Your task to perform on an android device: Go to battery settings Image 0: 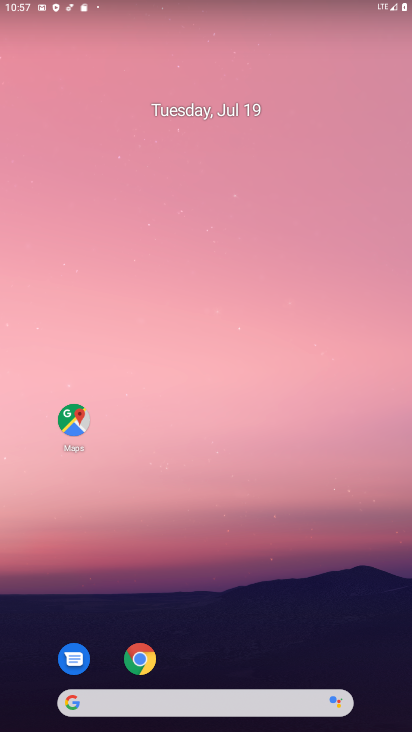
Step 0: drag from (222, 618) to (248, 312)
Your task to perform on an android device: Go to battery settings Image 1: 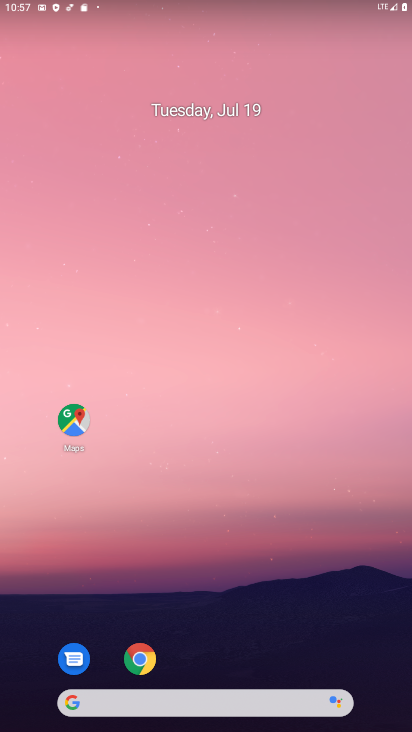
Step 1: drag from (251, 641) to (300, 233)
Your task to perform on an android device: Go to battery settings Image 2: 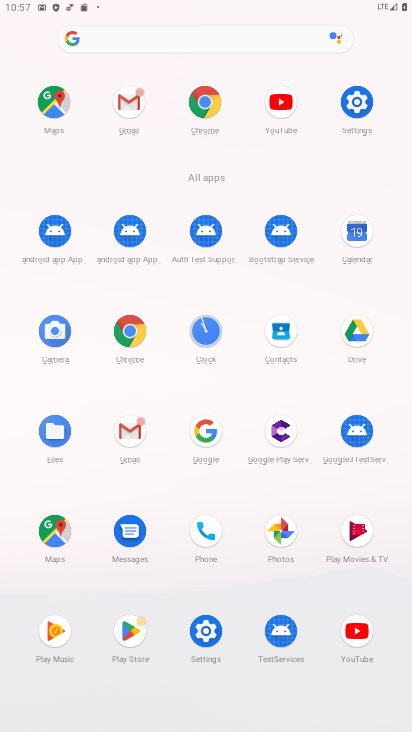
Step 2: click (205, 630)
Your task to perform on an android device: Go to battery settings Image 3: 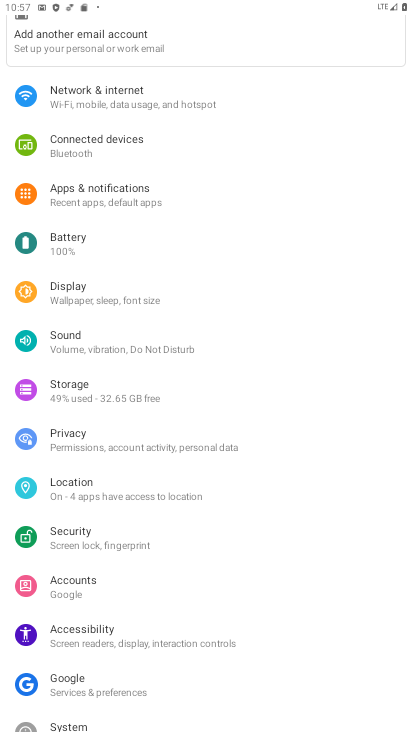
Step 3: click (94, 240)
Your task to perform on an android device: Go to battery settings Image 4: 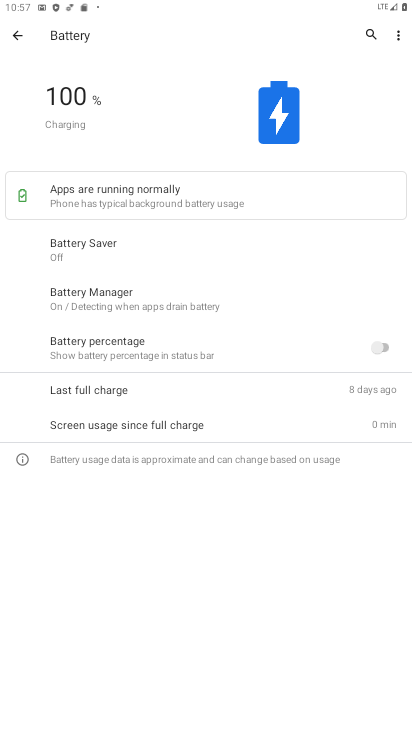
Step 4: task complete